Your task to perform on an android device: open chrome privacy settings Image 0: 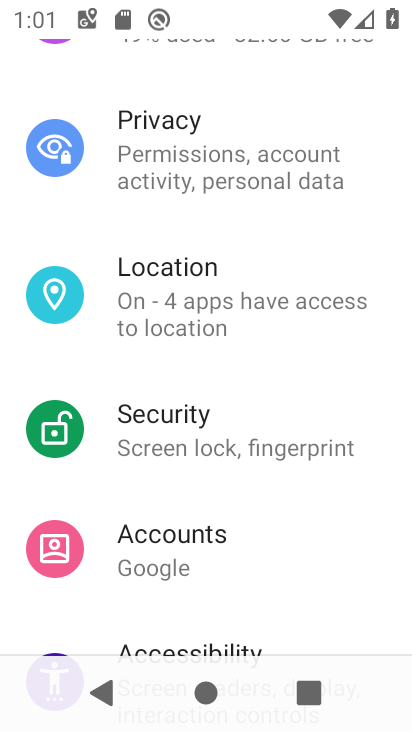
Step 0: drag from (225, 548) to (205, 205)
Your task to perform on an android device: open chrome privacy settings Image 1: 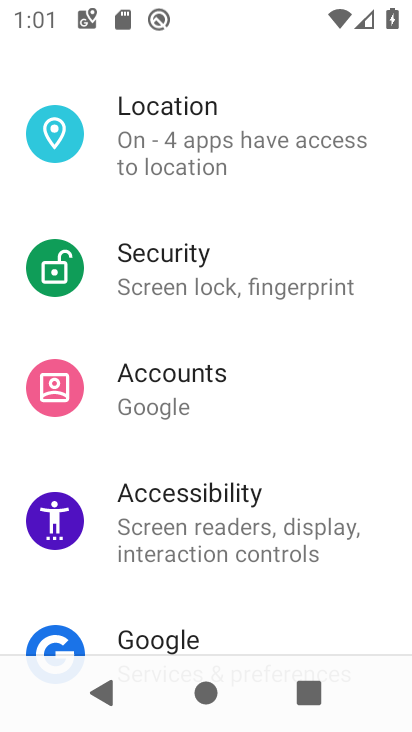
Step 1: drag from (220, 574) to (246, 121)
Your task to perform on an android device: open chrome privacy settings Image 2: 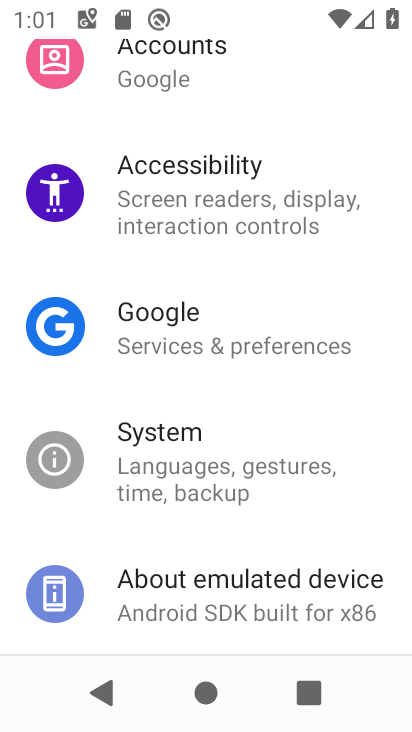
Step 2: drag from (246, 150) to (308, 551)
Your task to perform on an android device: open chrome privacy settings Image 3: 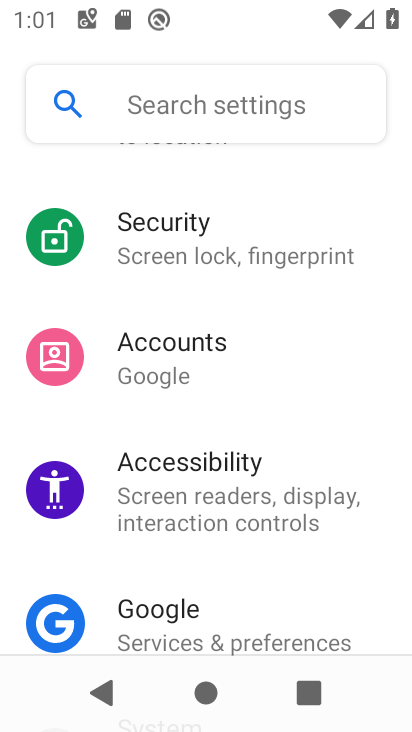
Step 3: press home button
Your task to perform on an android device: open chrome privacy settings Image 4: 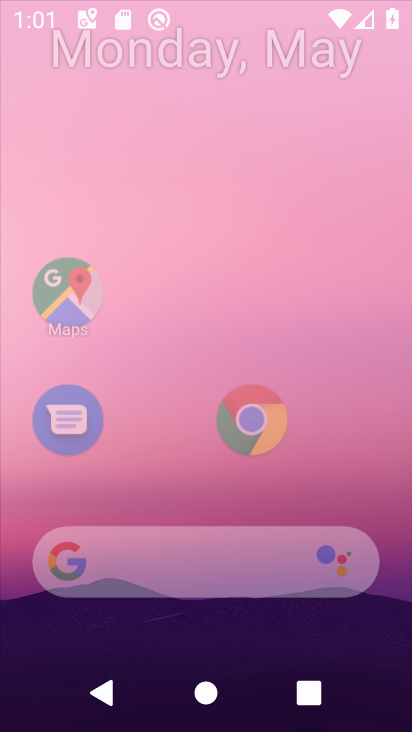
Step 4: drag from (234, 542) to (279, 0)
Your task to perform on an android device: open chrome privacy settings Image 5: 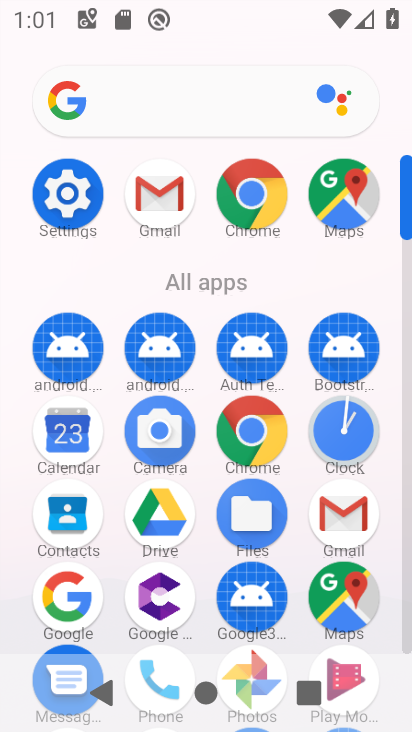
Step 5: click (238, 181)
Your task to perform on an android device: open chrome privacy settings Image 6: 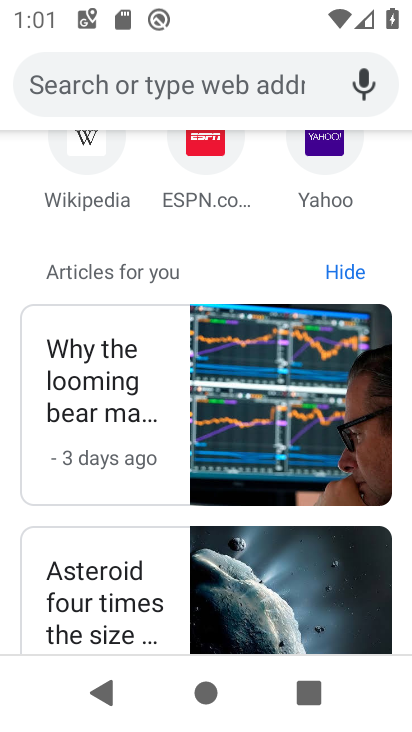
Step 6: drag from (273, 208) to (366, 664)
Your task to perform on an android device: open chrome privacy settings Image 7: 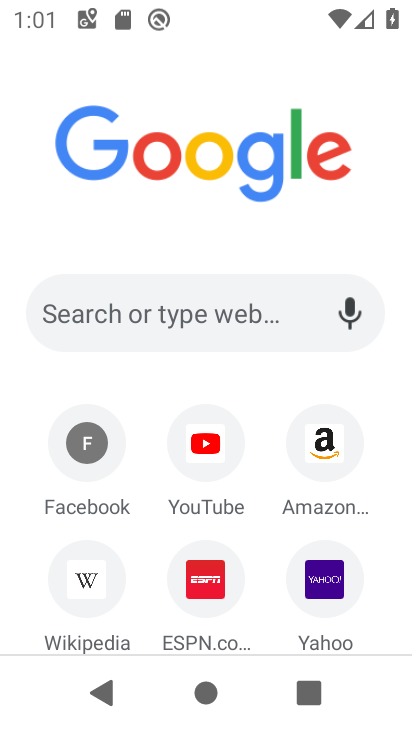
Step 7: drag from (284, 288) to (311, 327)
Your task to perform on an android device: open chrome privacy settings Image 8: 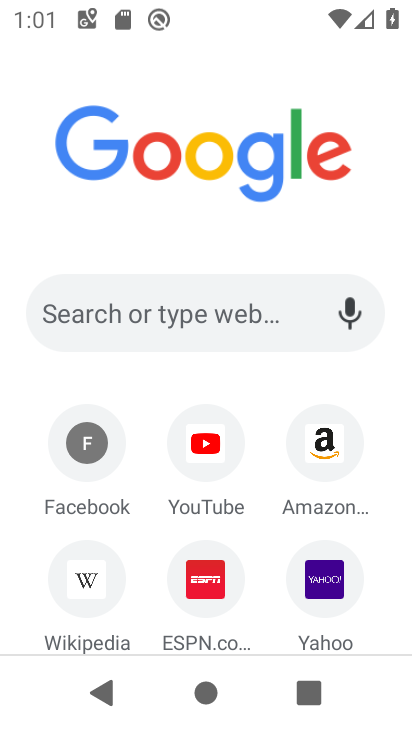
Step 8: drag from (341, 210) to (404, 371)
Your task to perform on an android device: open chrome privacy settings Image 9: 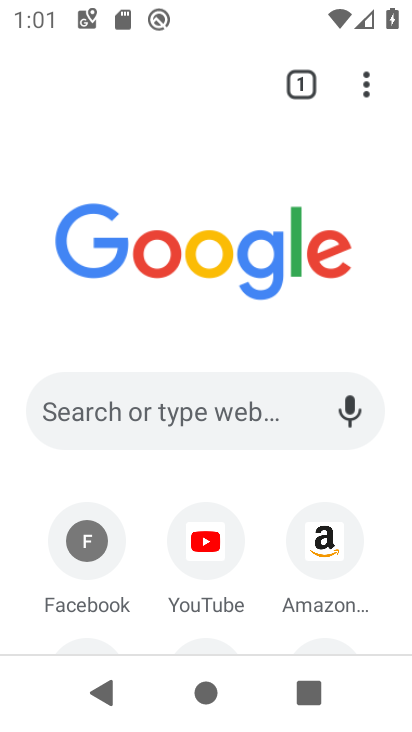
Step 9: click (365, 82)
Your task to perform on an android device: open chrome privacy settings Image 10: 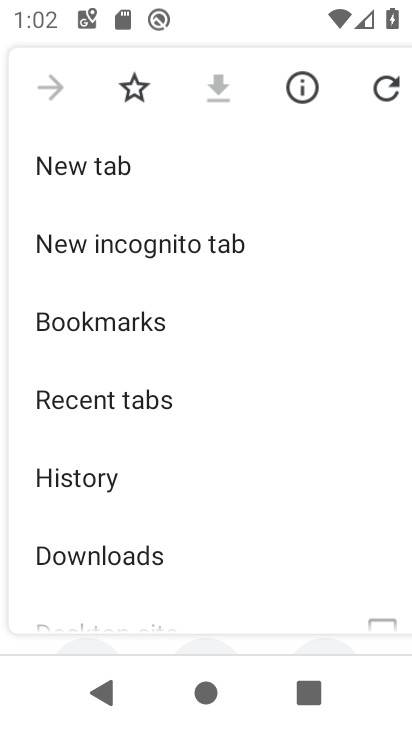
Step 10: drag from (219, 465) to (233, 47)
Your task to perform on an android device: open chrome privacy settings Image 11: 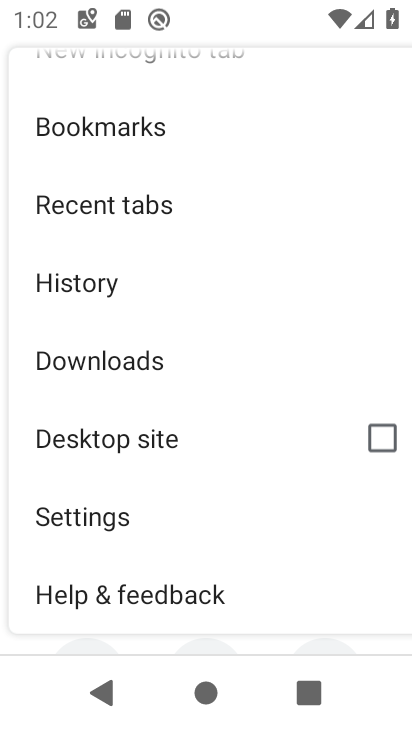
Step 11: click (116, 507)
Your task to perform on an android device: open chrome privacy settings Image 12: 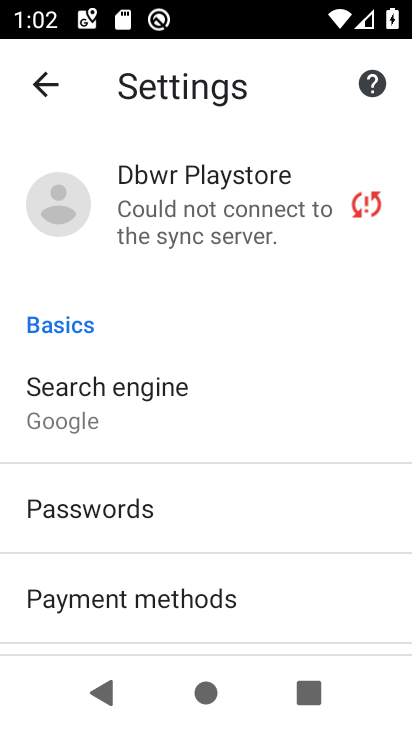
Step 12: drag from (189, 501) to (214, 89)
Your task to perform on an android device: open chrome privacy settings Image 13: 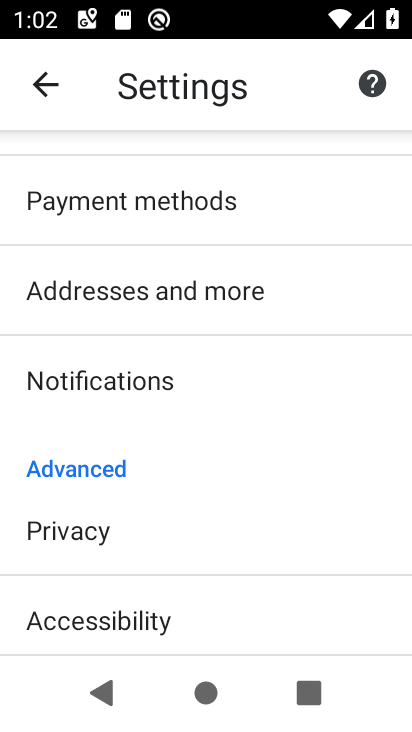
Step 13: drag from (190, 578) to (207, 205)
Your task to perform on an android device: open chrome privacy settings Image 14: 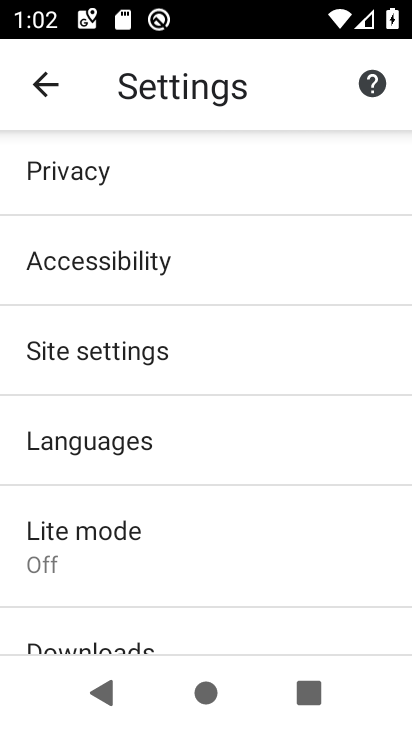
Step 14: drag from (179, 544) to (204, 276)
Your task to perform on an android device: open chrome privacy settings Image 15: 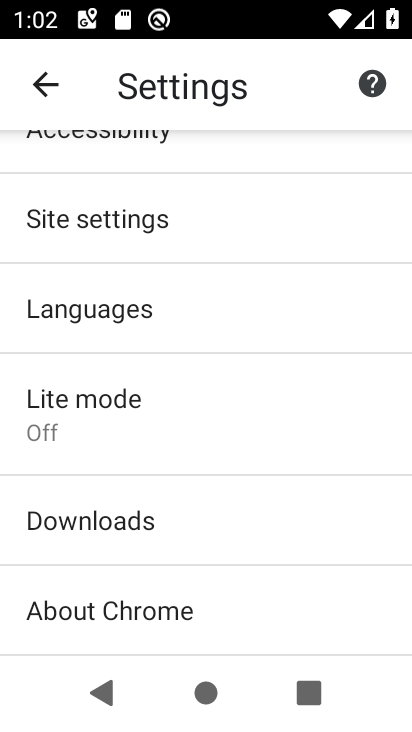
Step 15: drag from (159, 198) to (218, 499)
Your task to perform on an android device: open chrome privacy settings Image 16: 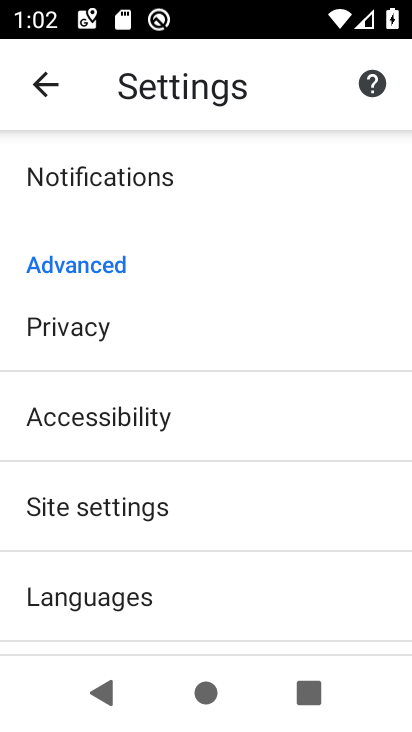
Step 16: click (134, 326)
Your task to perform on an android device: open chrome privacy settings Image 17: 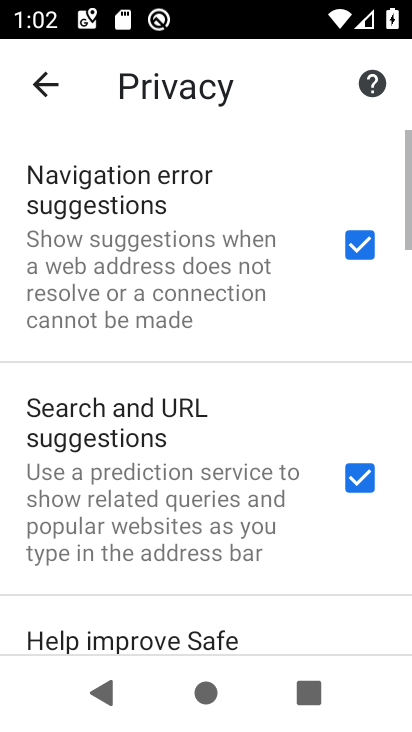
Step 17: task complete